Your task to perform on an android device: refresh tabs in the chrome app Image 0: 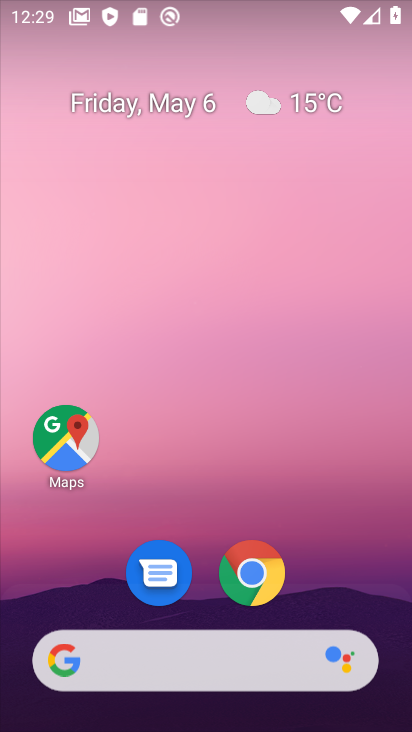
Step 0: click (248, 572)
Your task to perform on an android device: refresh tabs in the chrome app Image 1: 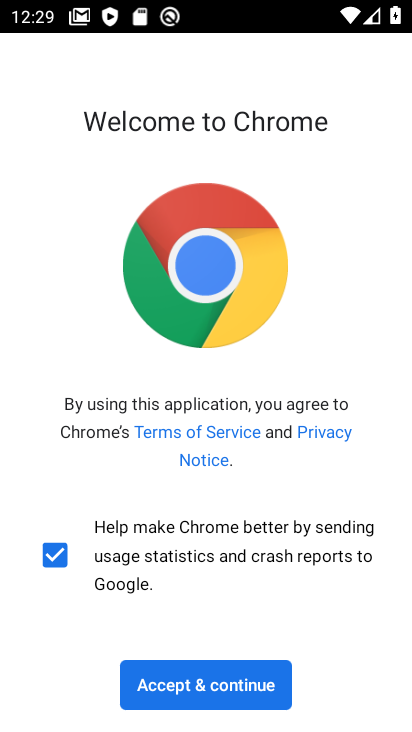
Step 1: click (220, 689)
Your task to perform on an android device: refresh tabs in the chrome app Image 2: 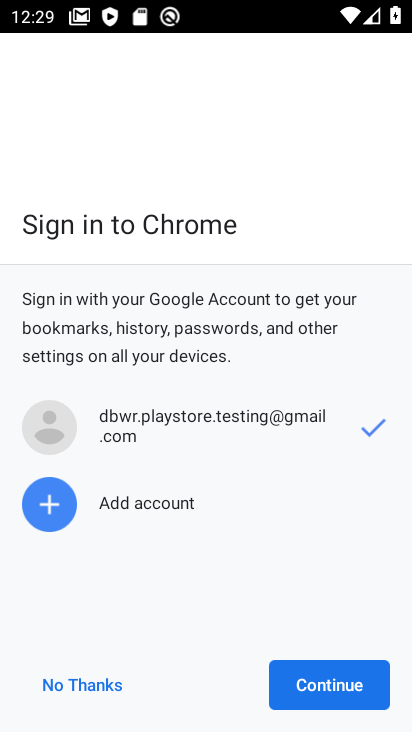
Step 2: click (298, 696)
Your task to perform on an android device: refresh tabs in the chrome app Image 3: 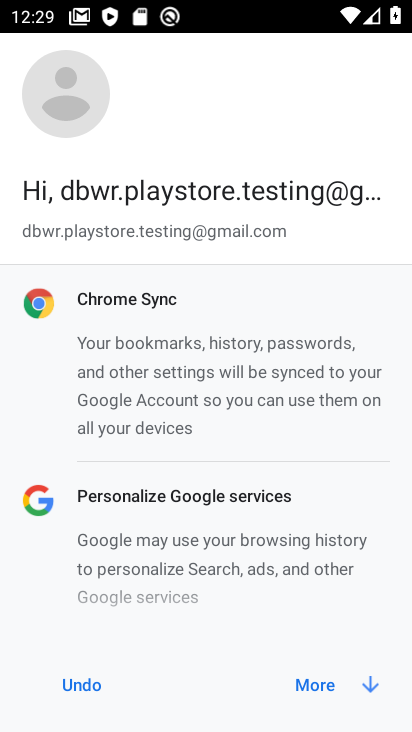
Step 3: click (305, 692)
Your task to perform on an android device: refresh tabs in the chrome app Image 4: 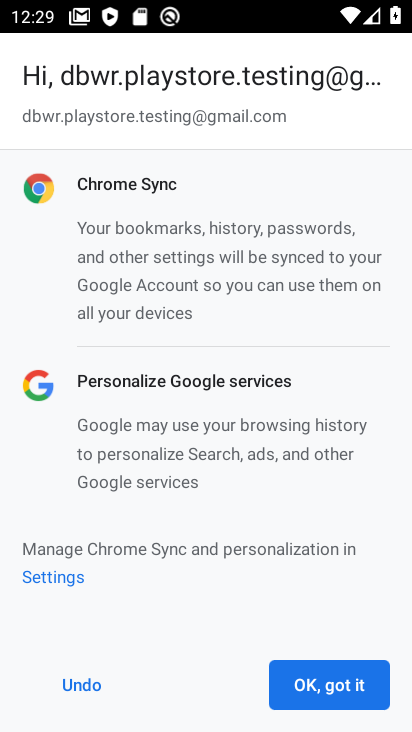
Step 4: click (303, 683)
Your task to perform on an android device: refresh tabs in the chrome app Image 5: 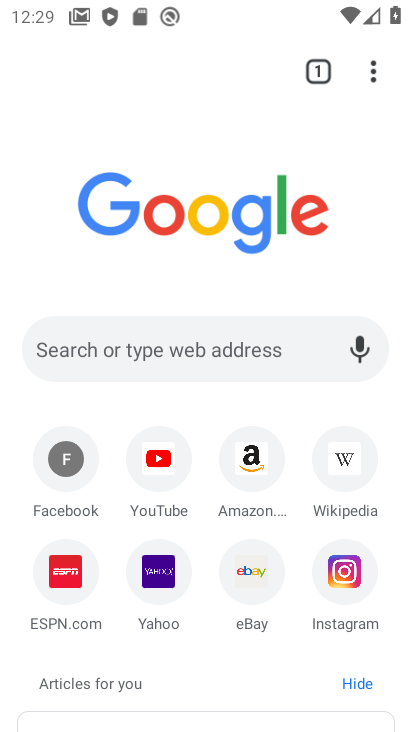
Step 5: click (373, 73)
Your task to perform on an android device: refresh tabs in the chrome app Image 6: 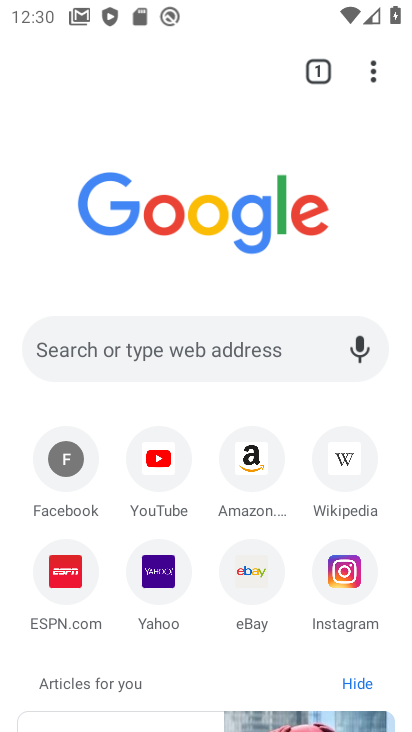
Step 6: task complete